Your task to perform on an android device: check out phone information Image 0: 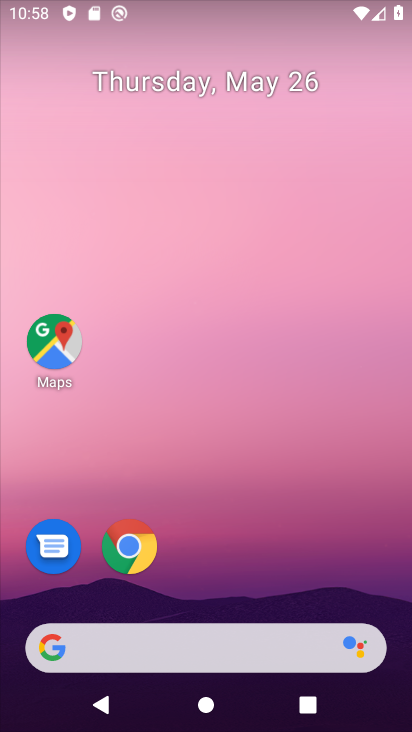
Step 0: drag from (202, 546) to (226, 53)
Your task to perform on an android device: check out phone information Image 1: 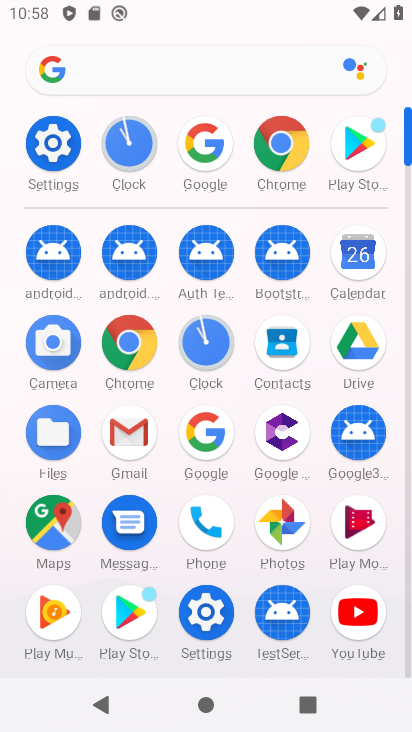
Step 1: click (205, 614)
Your task to perform on an android device: check out phone information Image 2: 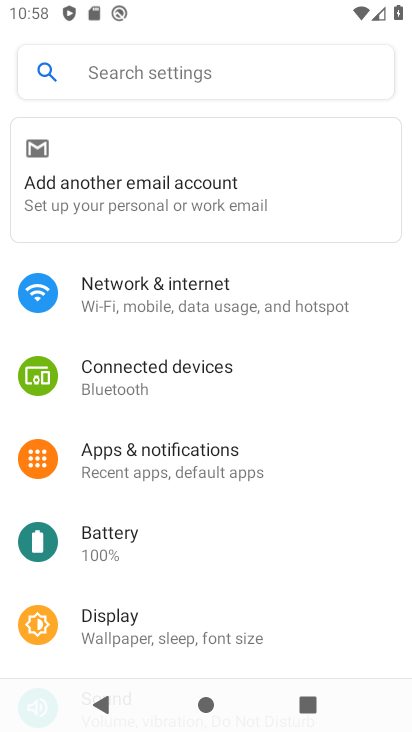
Step 2: drag from (240, 587) to (263, 8)
Your task to perform on an android device: check out phone information Image 3: 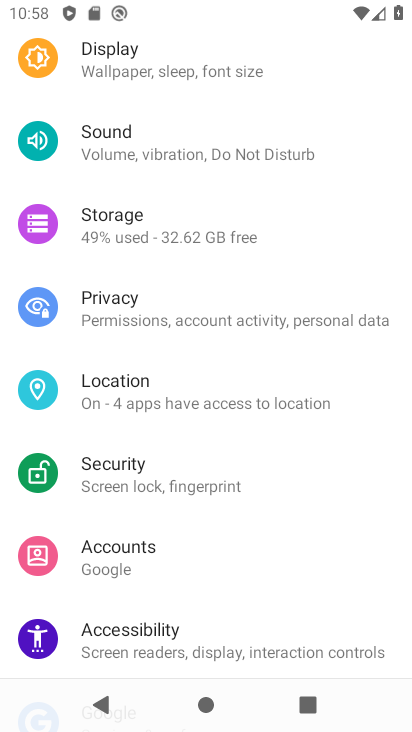
Step 3: drag from (236, 514) to (215, 82)
Your task to perform on an android device: check out phone information Image 4: 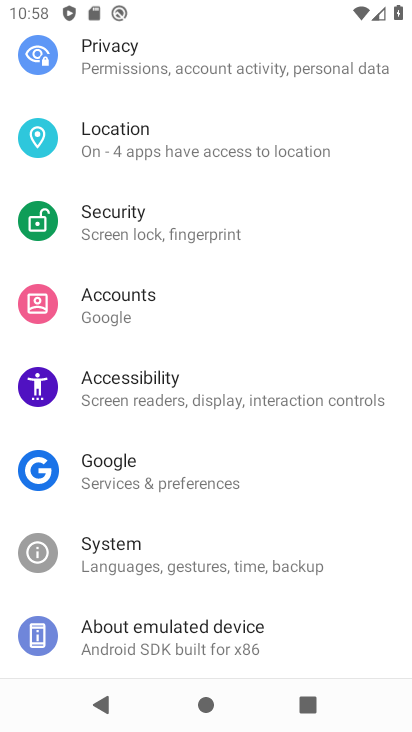
Step 4: click (118, 647)
Your task to perform on an android device: check out phone information Image 5: 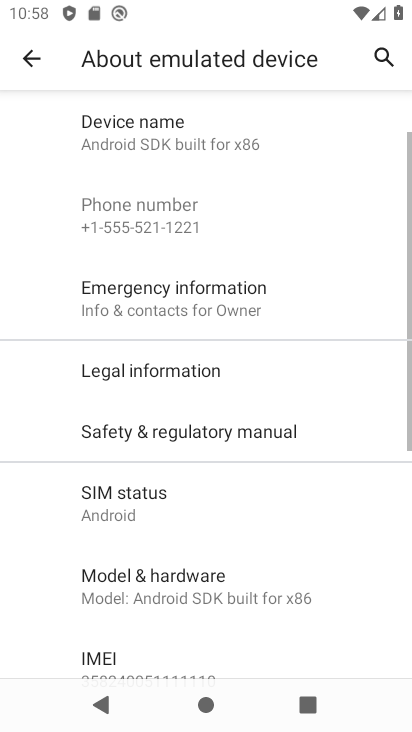
Step 5: task complete